Your task to perform on an android device: remove spam from my inbox in the gmail app Image 0: 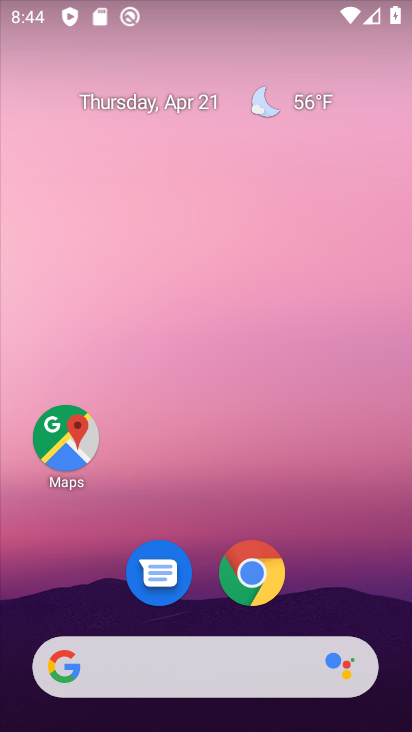
Step 0: drag from (348, 605) to (305, 180)
Your task to perform on an android device: remove spam from my inbox in the gmail app Image 1: 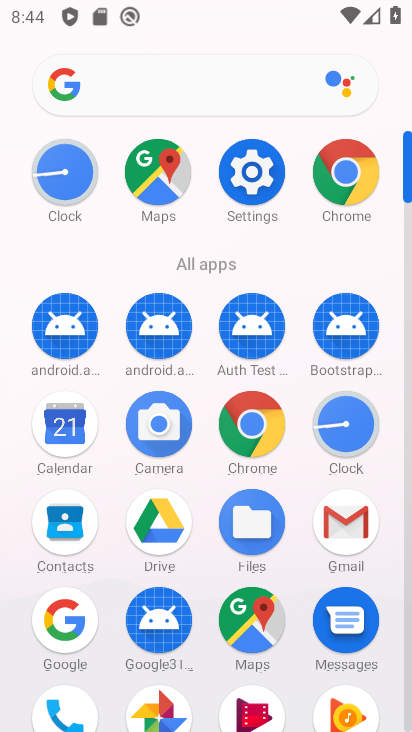
Step 1: click (328, 506)
Your task to perform on an android device: remove spam from my inbox in the gmail app Image 2: 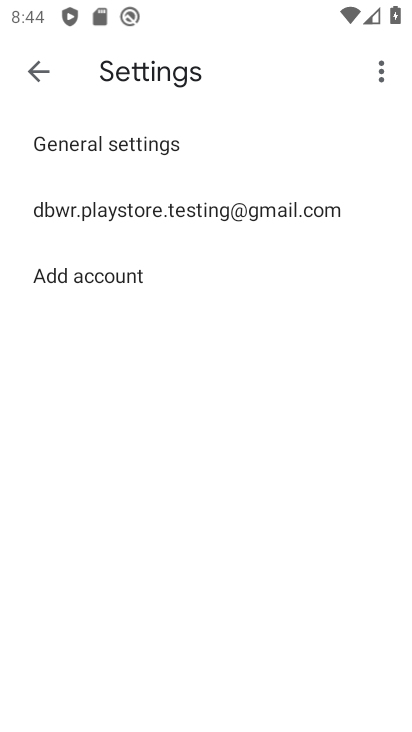
Step 2: click (129, 206)
Your task to perform on an android device: remove spam from my inbox in the gmail app Image 3: 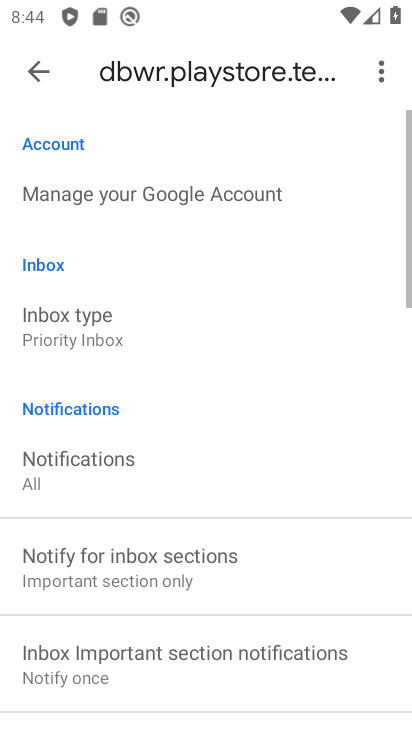
Step 3: click (38, 67)
Your task to perform on an android device: remove spam from my inbox in the gmail app Image 4: 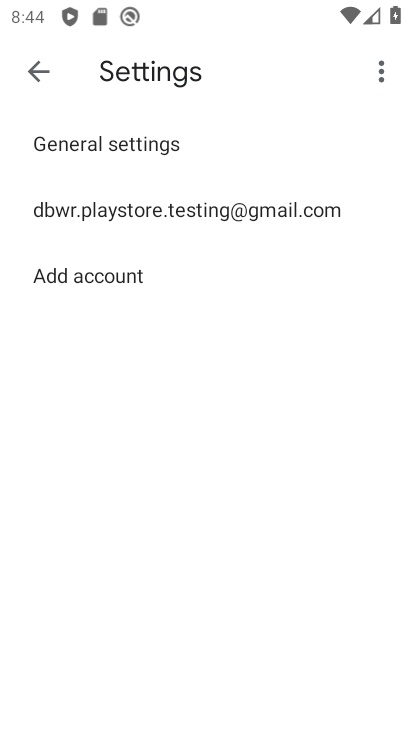
Step 4: click (38, 69)
Your task to perform on an android device: remove spam from my inbox in the gmail app Image 5: 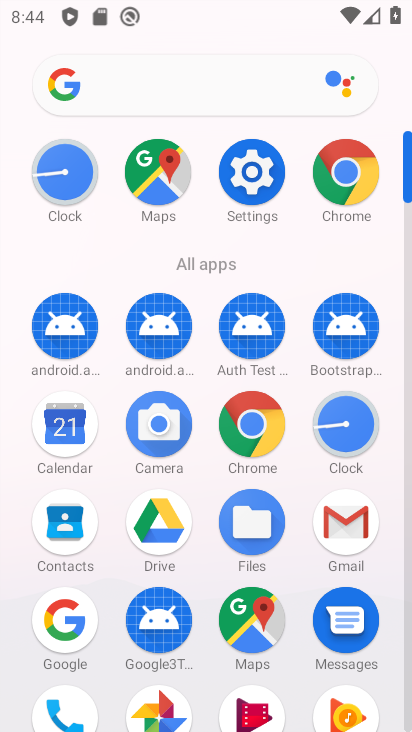
Step 5: click (314, 522)
Your task to perform on an android device: remove spam from my inbox in the gmail app Image 6: 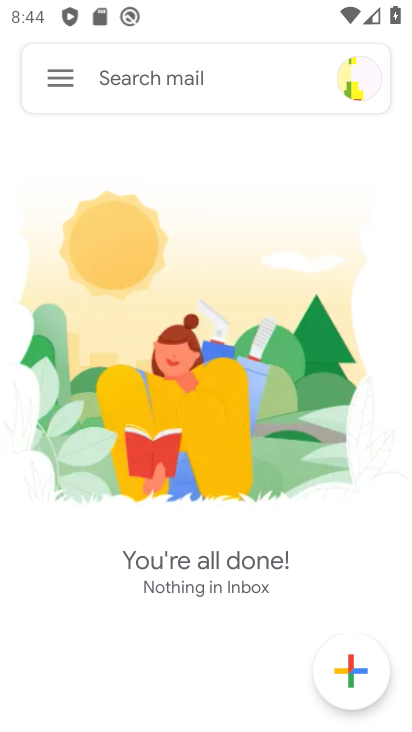
Step 6: click (59, 76)
Your task to perform on an android device: remove spam from my inbox in the gmail app Image 7: 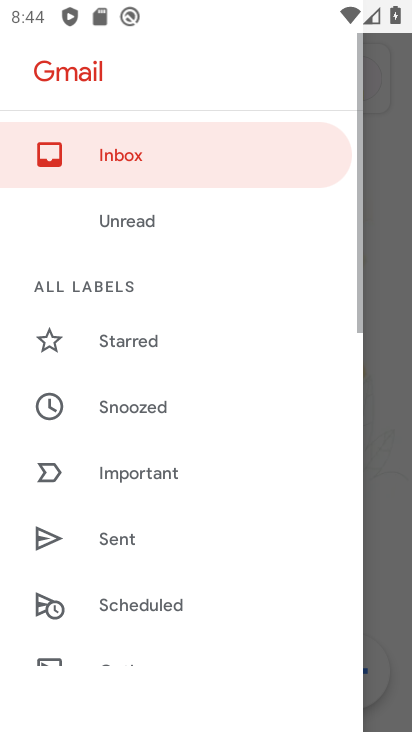
Step 7: drag from (145, 610) to (119, 207)
Your task to perform on an android device: remove spam from my inbox in the gmail app Image 8: 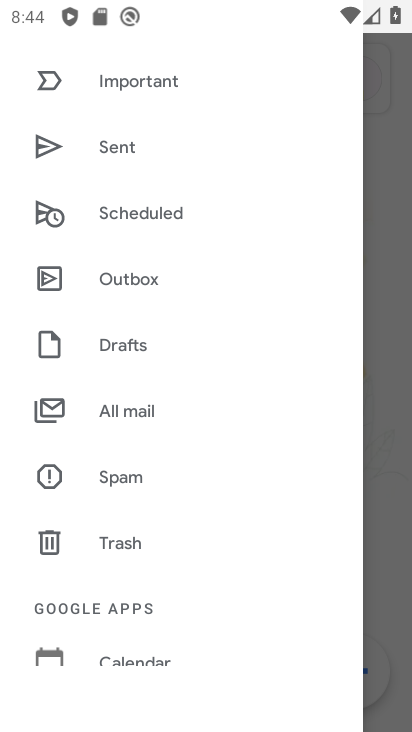
Step 8: click (144, 474)
Your task to perform on an android device: remove spam from my inbox in the gmail app Image 9: 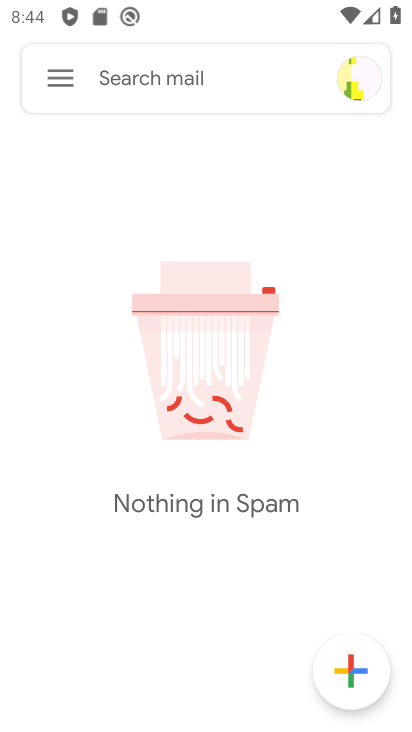
Step 9: task complete